Your task to perform on an android device: Open display settings Image 0: 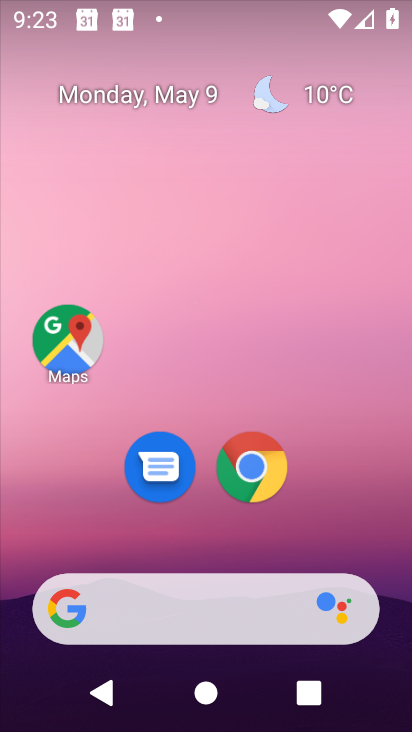
Step 0: drag from (369, 529) to (337, 8)
Your task to perform on an android device: Open display settings Image 1: 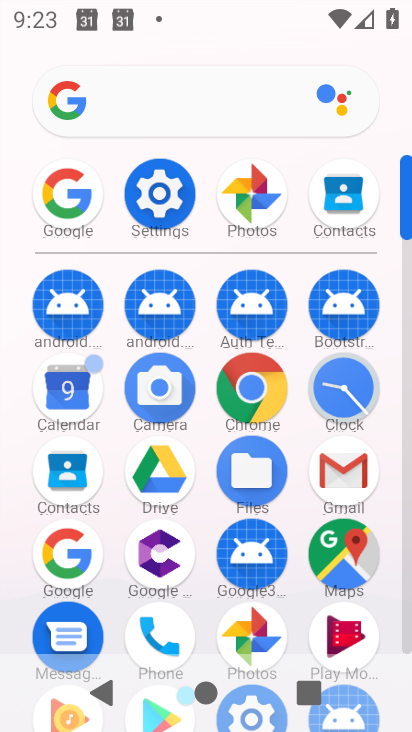
Step 1: click (175, 186)
Your task to perform on an android device: Open display settings Image 2: 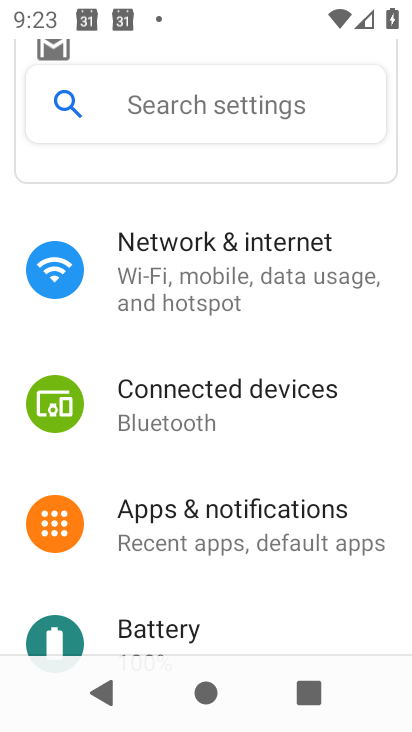
Step 2: drag from (305, 586) to (298, 171)
Your task to perform on an android device: Open display settings Image 3: 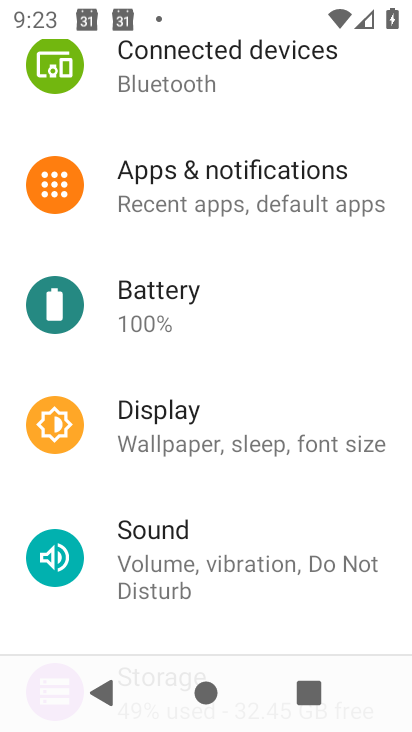
Step 3: click (172, 410)
Your task to perform on an android device: Open display settings Image 4: 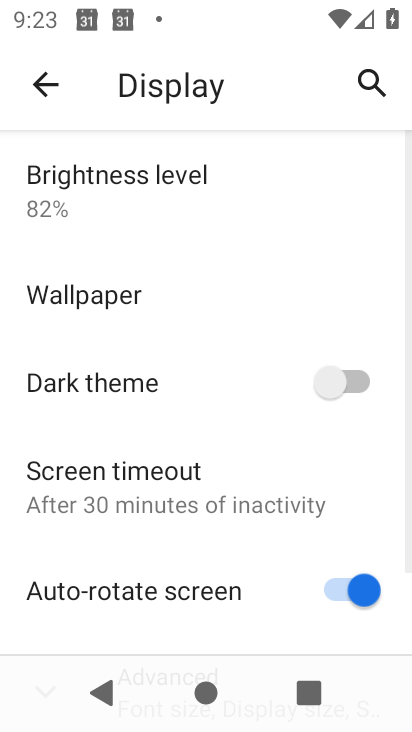
Step 4: task complete